Your task to perform on an android device: snooze an email in the gmail app Image 0: 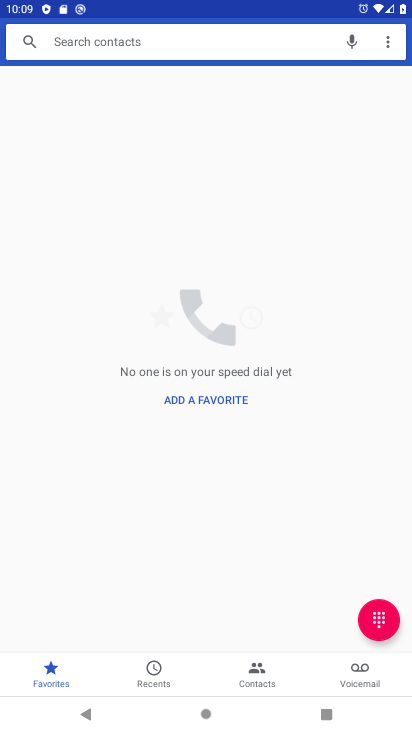
Step 0: press home button
Your task to perform on an android device: snooze an email in the gmail app Image 1: 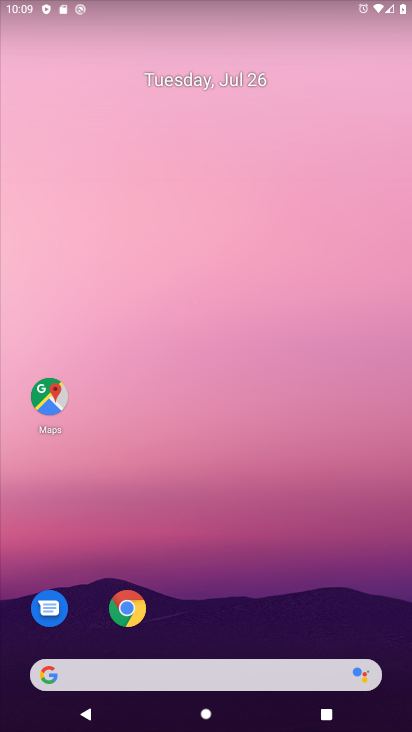
Step 1: drag from (231, 688) to (235, 124)
Your task to perform on an android device: snooze an email in the gmail app Image 2: 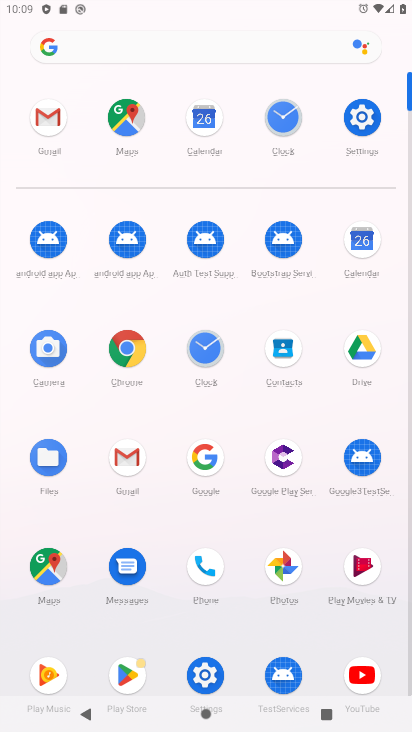
Step 2: click (135, 458)
Your task to perform on an android device: snooze an email in the gmail app Image 3: 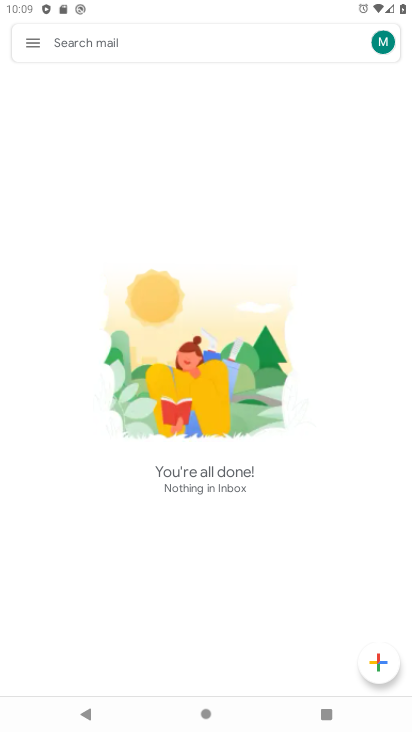
Step 3: click (34, 46)
Your task to perform on an android device: snooze an email in the gmail app Image 4: 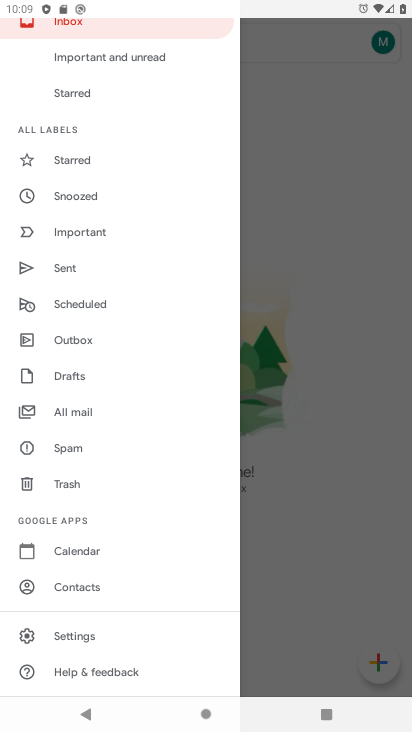
Step 4: drag from (99, 87) to (92, 356)
Your task to perform on an android device: snooze an email in the gmail app Image 5: 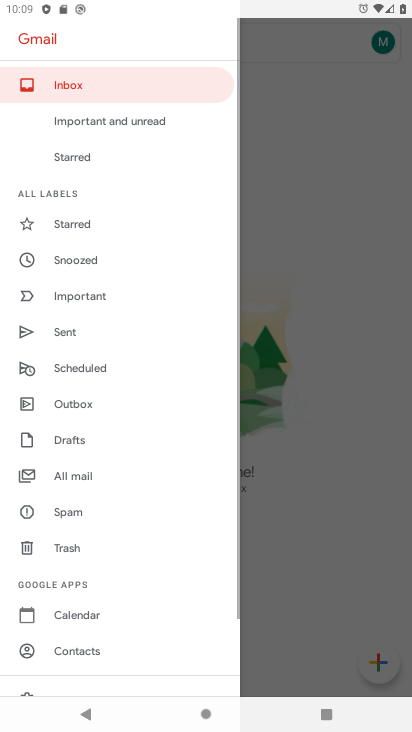
Step 5: click (74, 85)
Your task to perform on an android device: snooze an email in the gmail app Image 6: 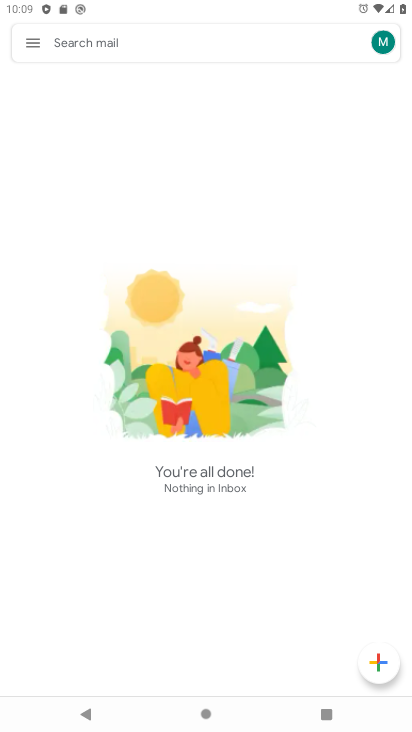
Step 6: task complete